Your task to perform on an android device: clear all cookies in the chrome app Image 0: 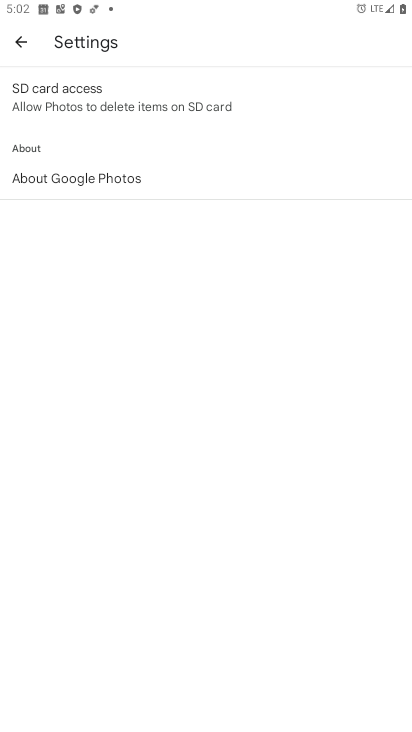
Step 0: press home button
Your task to perform on an android device: clear all cookies in the chrome app Image 1: 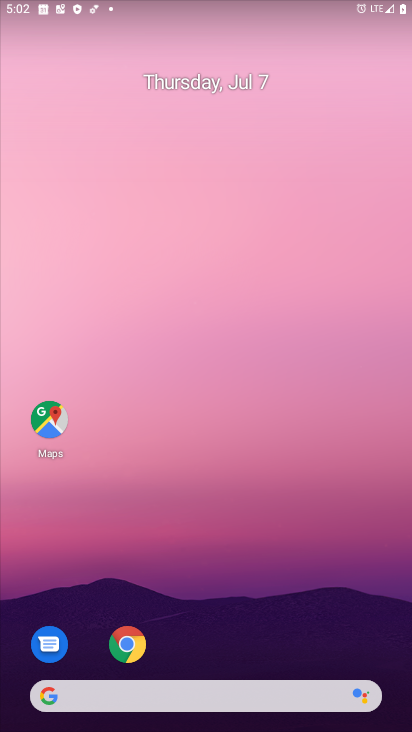
Step 1: click (128, 644)
Your task to perform on an android device: clear all cookies in the chrome app Image 2: 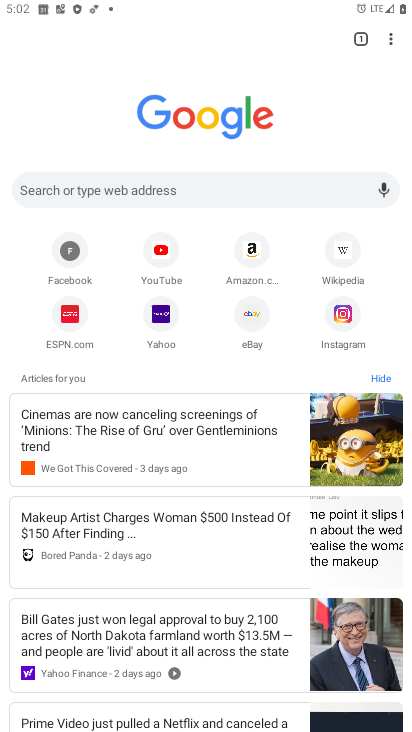
Step 2: click (390, 39)
Your task to perform on an android device: clear all cookies in the chrome app Image 3: 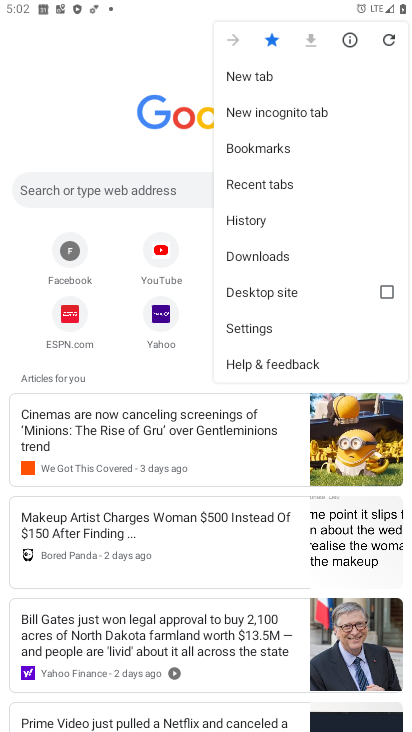
Step 3: click (254, 217)
Your task to perform on an android device: clear all cookies in the chrome app Image 4: 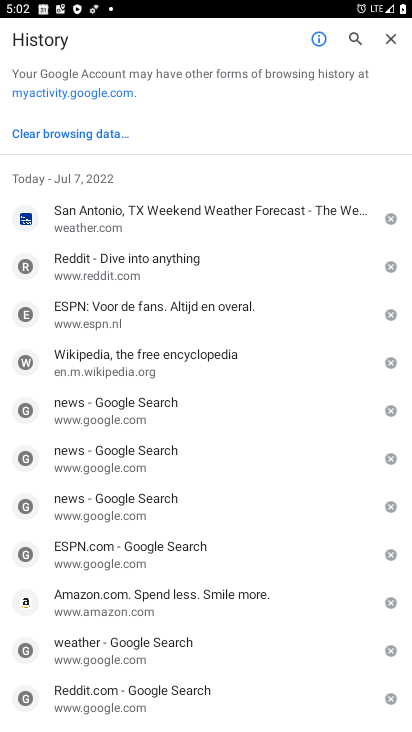
Step 4: click (105, 136)
Your task to perform on an android device: clear all cookies in the chrome app Image 5: 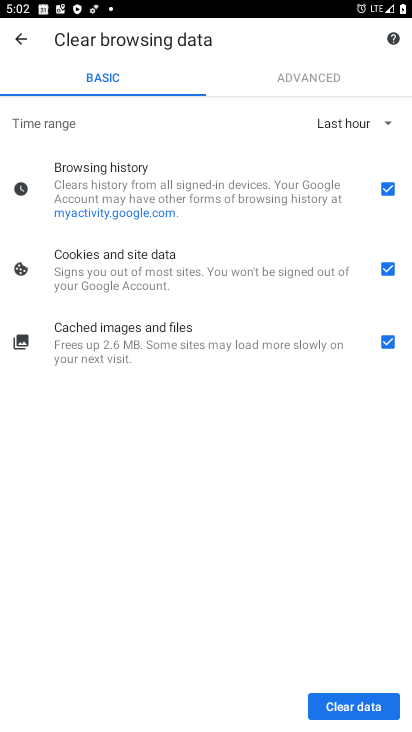
Step 5: click (347, 124)
Your task to perform on an android device: clear all cookies in the chrome app Image 6: 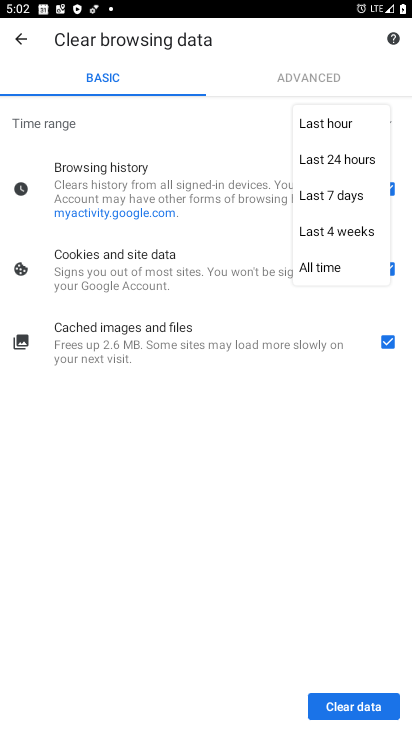
Step 6: click (329, 260)
Your task to perform on an android device: clear all cookies in the chrome app Image 7: 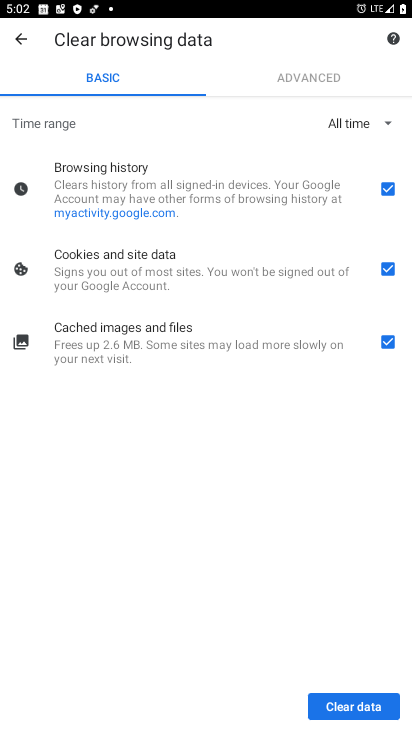
Step 7: click (354, 708)
Your task to perform on an android device: clear all cookies in the chrome app Image 8: 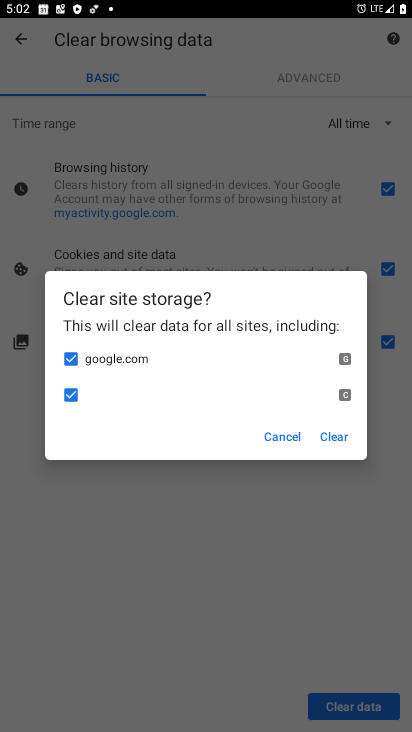
Step 8: click (326, 445)
Your task to perform on an android device: clear all cookies in the chrome app Image 9: 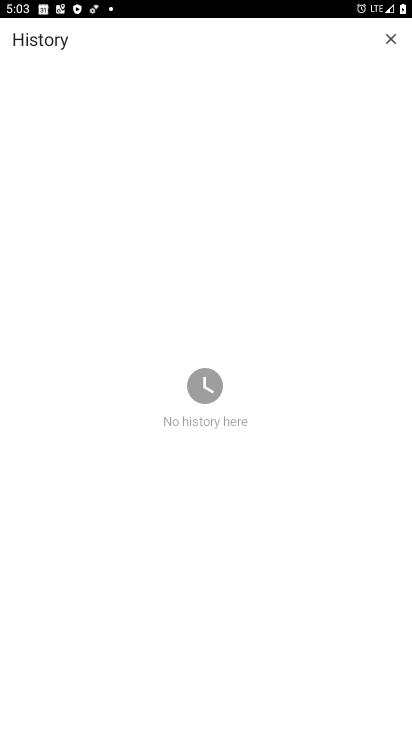
Step 9: task complete